Your task to perform on an android device: Clear all items from cart on costco.com. Add logitech g pro to the cart on costco.com Image 0: 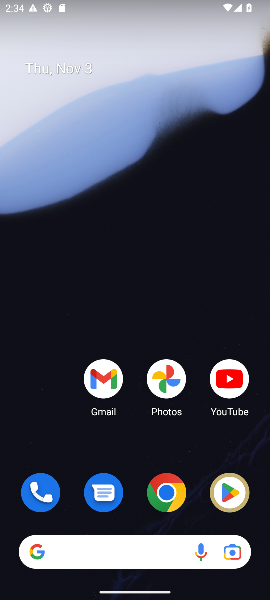
Step 0: click (164, 496)
Your task to perform on an android device: Clear all items from cart on costco.com. Add logitech g pro to the cart on costco.com Image 1: 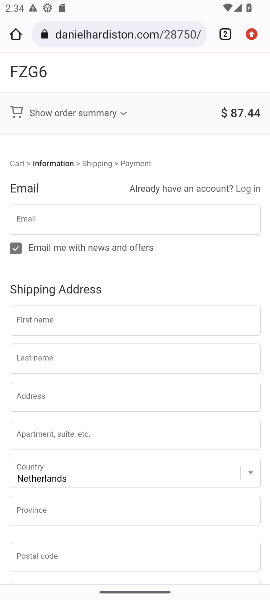
Step 1: click (167, 31)
Your task to perform on an android device: Clear all items from cart on costco.com. Add logitech g pro to the cart on costco.com Image 2: 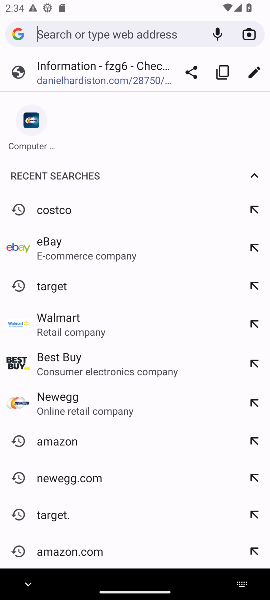
Step 2: type "costco.com"
Your task to perform on an android device: Clear all items from cart on costco.com. Add logitech g pro to the cart on costco.com Image 3: 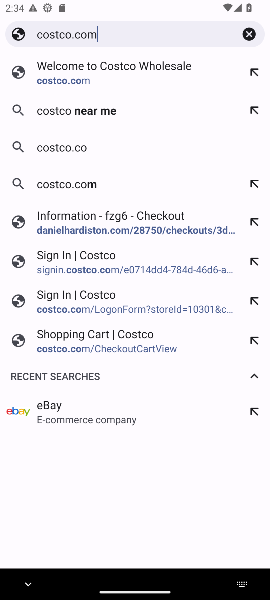
Step 3: type ""
Your task to perform on an android device: Clear all items from cart on costco.com. Add logitech g pro to the cart on costco.com Image 4: 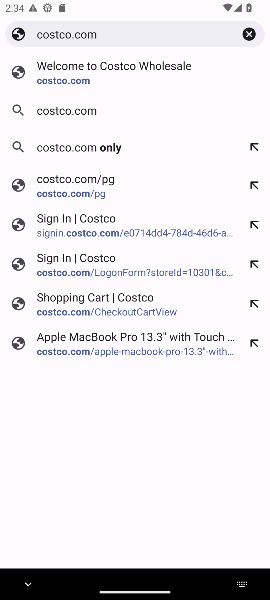
Step 4: click (138, 74)
Your task to perform on an android device: Clear all items from cart on costco.com. Add logitech g pro to the cart on costco.com Image 5: 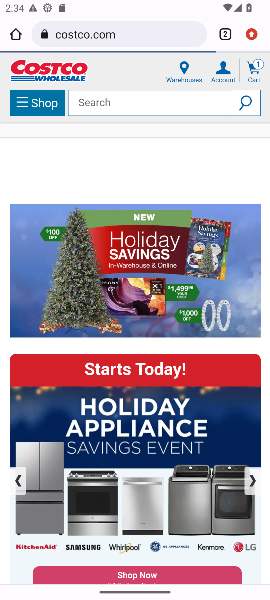
Step 5: click (124, 111)
Your task to perform on an android device: Clear all items from cart on costco.com. Add logitech g pro to the cart on costco.com Image 6: 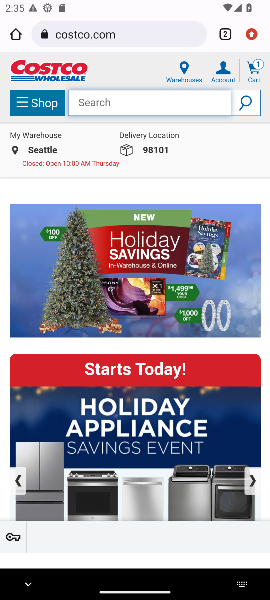
Step 6: click (257, 68)
Your task to perform on an android device: Clear all items from cart on costco.com. Add logitech g pro to the cart on costco.com Image 7: 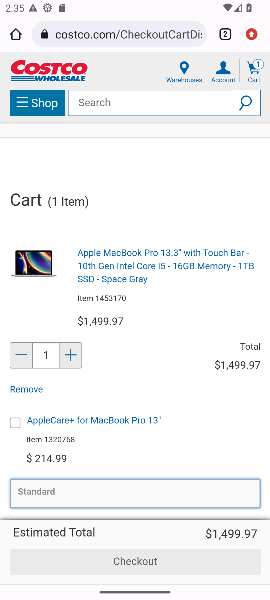
Step 7: click (23, 353)
Your task to perform on an android device: Clear all items from cart on costco.com. Add logitech g pro to the cart on costco.com Image 8: 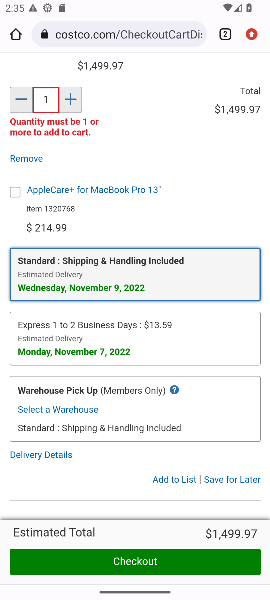
Step 8: click (24, 156)
Your task to perform on an android device: Clear all items from cart on costco.com. Add logitech g pro to the cart on costco.com Image 9: 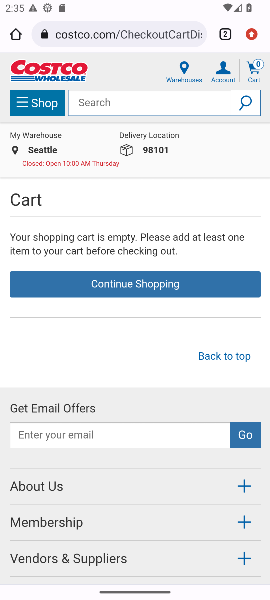
Step 9: click (99, 109)
Your task to perform on an android device: Clear all items from cart on costco.com. Add logitech g pro to the cart on costco.com Image 10: 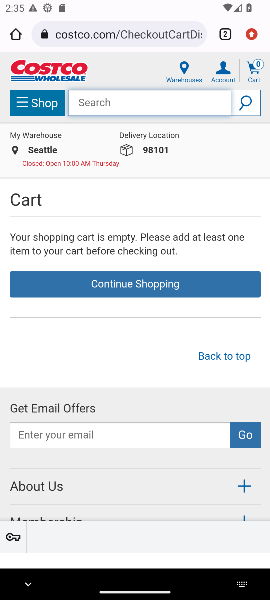
Step 10: type "logitech g pro"
Your task to perform on an android device: Clear all items from cart on costco.com. Add logitech g pro to the cart on costco.com Image 11: 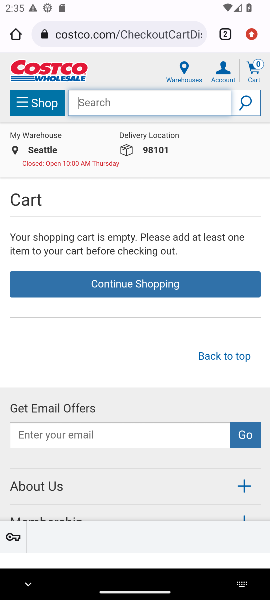
Step 11: type ""
Your task to perform on an android device: Clear all items from cart on costco.com. Add logitech g pro to the cart on costco.com Image 12: 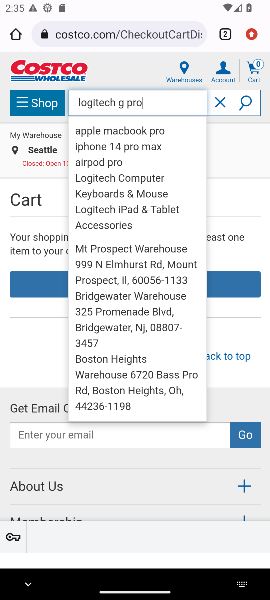
Step 12: click (239, 101)
Your task to perform on an android device: Clear all items from cart on costco.com. Add logitech g pro to the cart on costco.com Image 13: 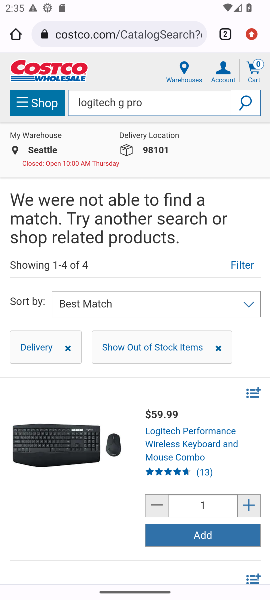
Step 13: task complete